Your task to perform on an android device: When is my next meeting? Image 0: 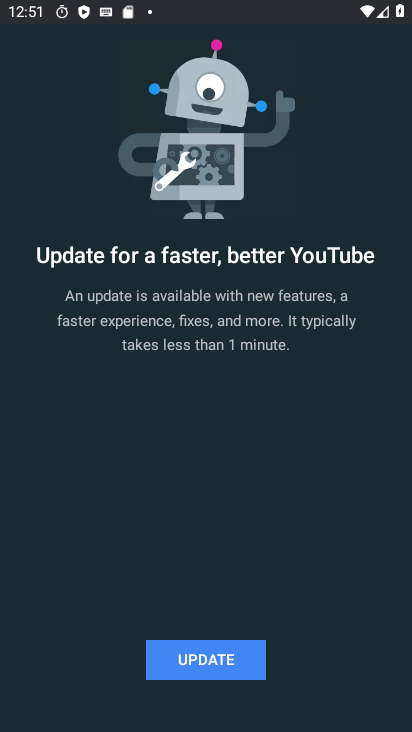
Step 0: press home button
Your task to perform on an android device: When is my next meeting? Image 1: 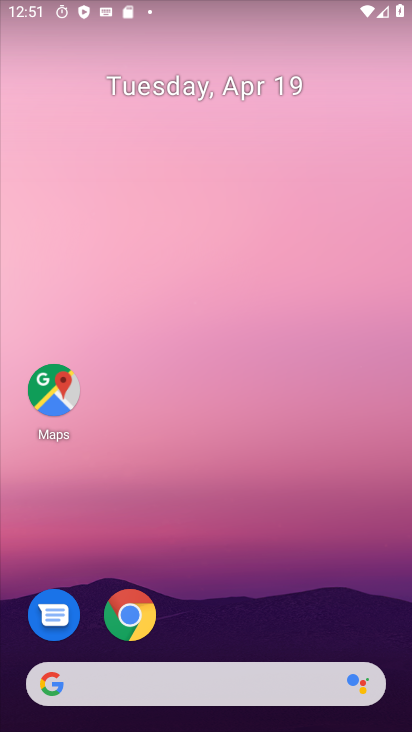
Step 1: drag from (374, 620) to (366, 127)
Your task to perform on an android device: When is my next meeting? Image 2: 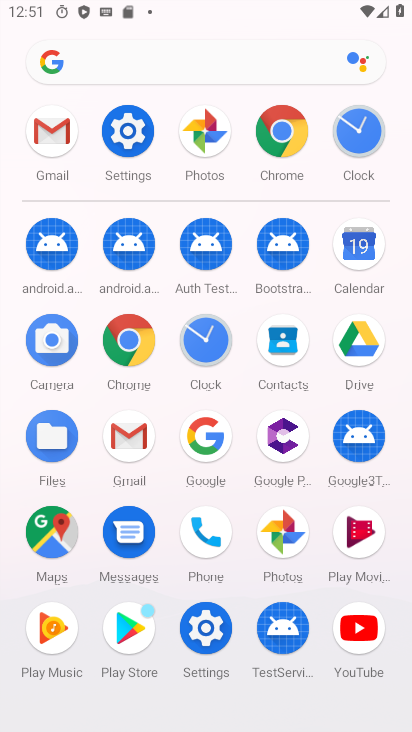
Step 2: click (374, 253)
Your task to perform on an android device: When is my next meeting? Image 3: 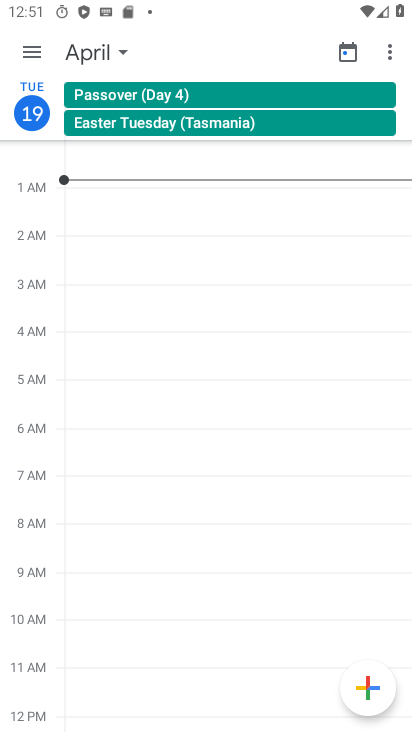
Step 3: click (35, 49)
Your task to perform on an android device: When is my next meeting? Image 4: 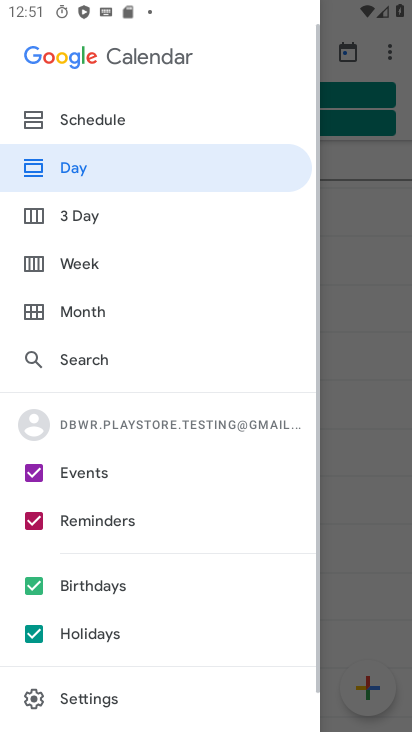
Step 4: click (29, 516)
Your task to perform on an android device: When is my next meeting? Image 5: 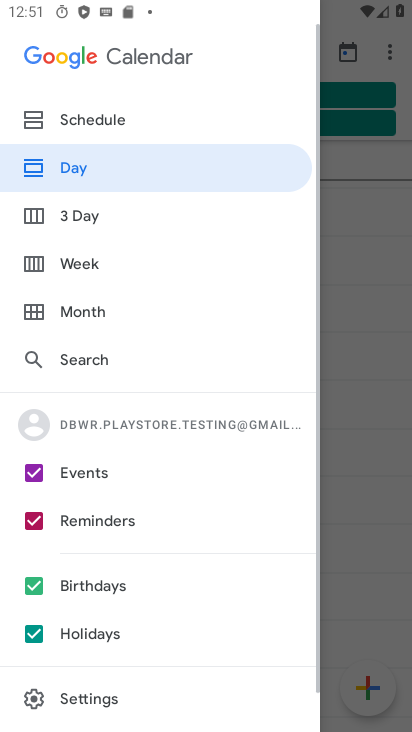
Step 5: click (30, 585)
Your task to perform on an android device: When is my next meeting? Image 6: 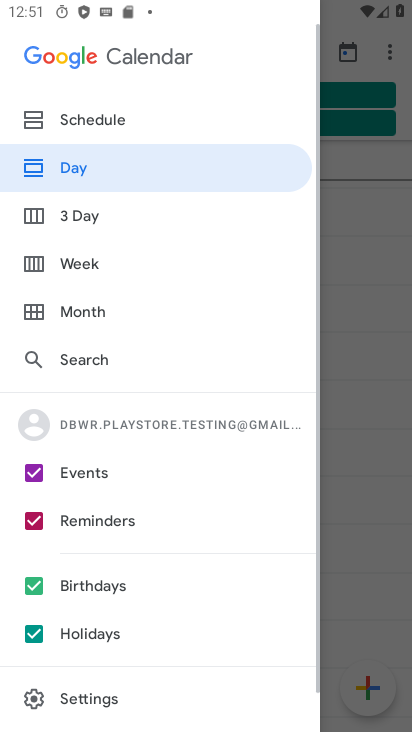
Step 6: click (28, 640)
Your task to perform on an android device: When is my next meeting? Image 7: 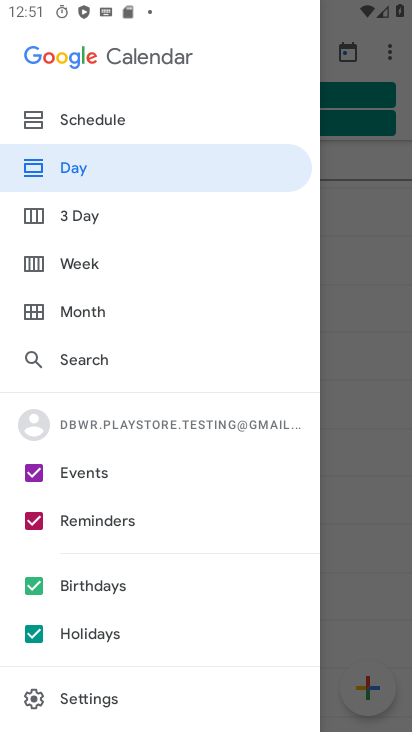
Step 7: click (29, 630)
Your task to perform on an android device: When is my next meeting? Image 8: 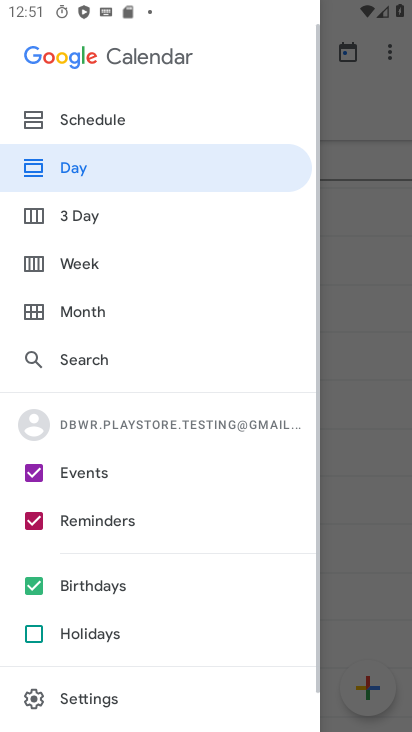
Step 8: click (28, 595)
Your task to perform on an android device: When is my next meeting? Image 9: 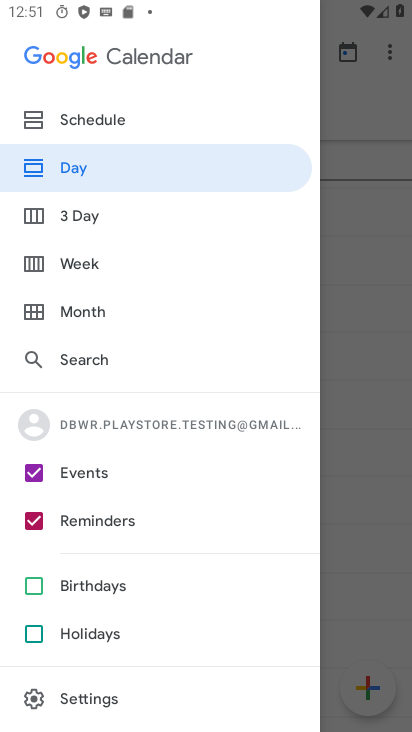
Step 9: click (28, 511)
Your task to perform on an android device: When is my next meeting? Image 10: 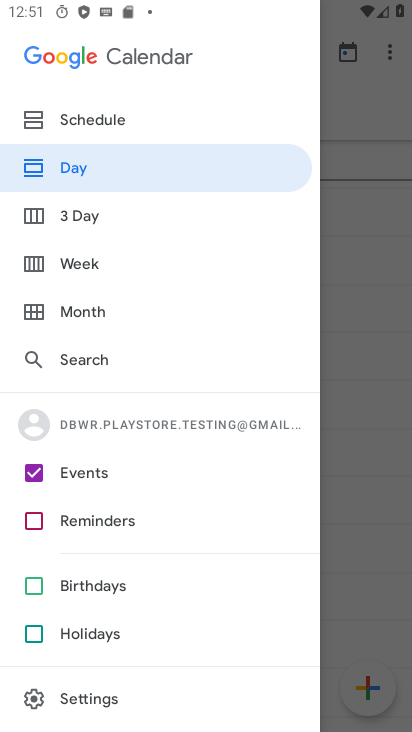
Step 10: click (378, 302)
Your task to perform on an android device: When is my next meeting? Image 11: 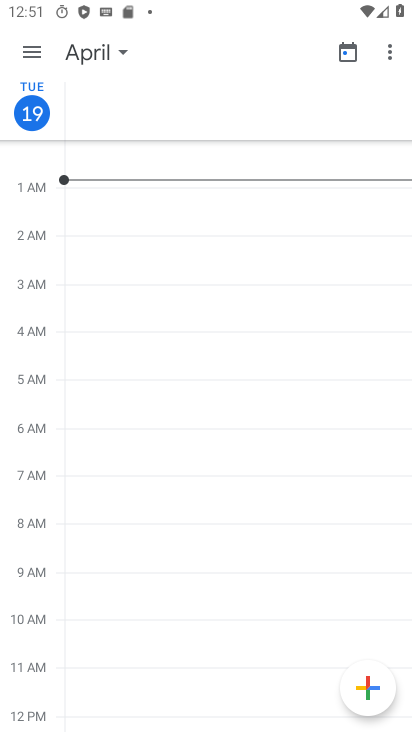
Step 11: click (116, 50)
Your task to perform on an android device: When is my next meeting? Image 12: 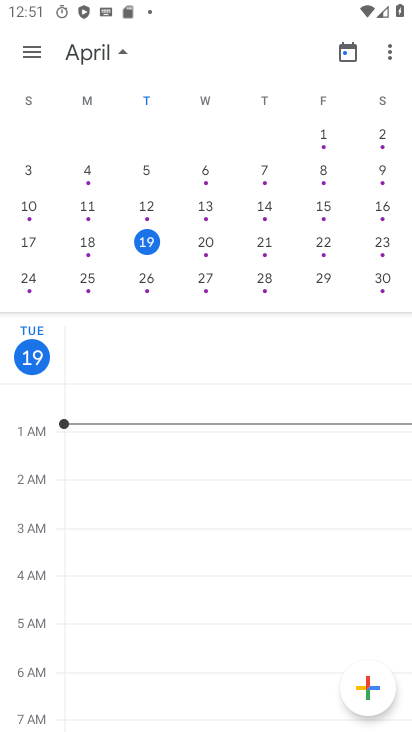
Step 12: task complete